Your task to perform on an android device: What is the news today? Image 0: 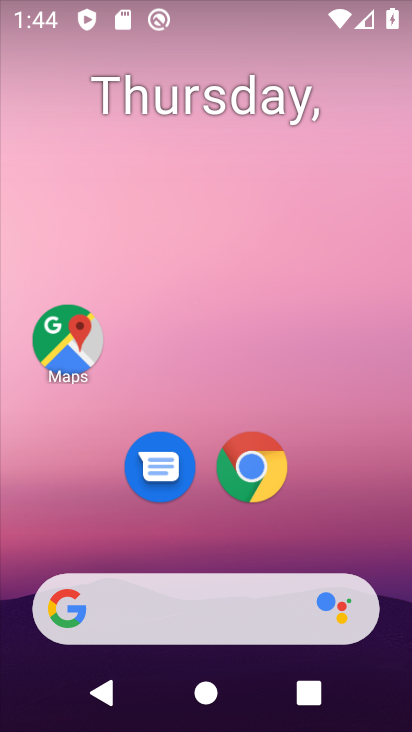
Step 0: drag from (343, 509) to (328, 162)
Your task to perform on an android device: What is the news today? Image 1: 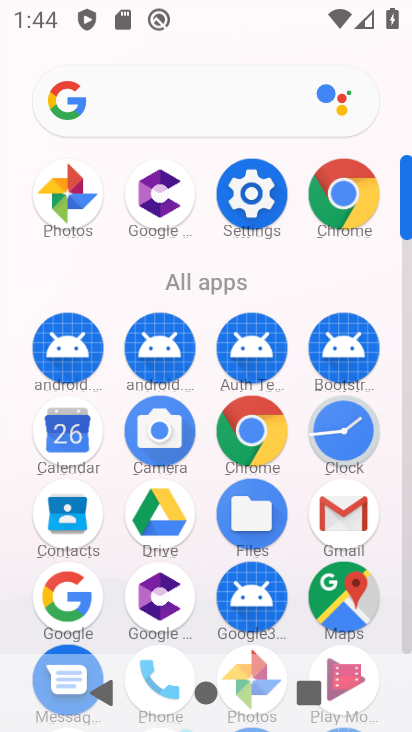
Step 1: click (268, 446)
Your task to perform on an android device: What is the news today? Image 2: 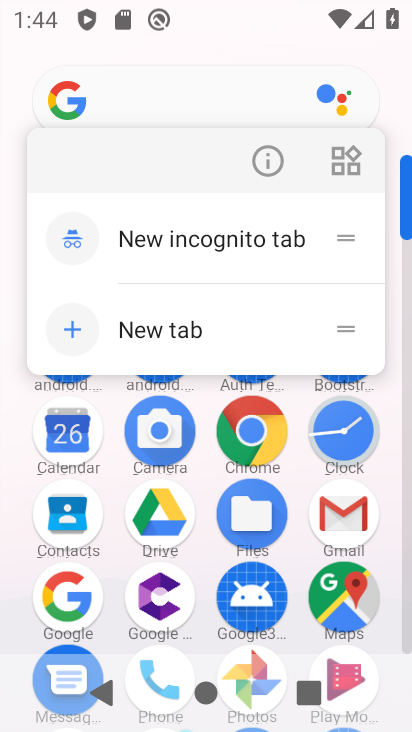
Step 2: click (260, 430)
Your task to perform on an android device: What is the news today? Image 3: 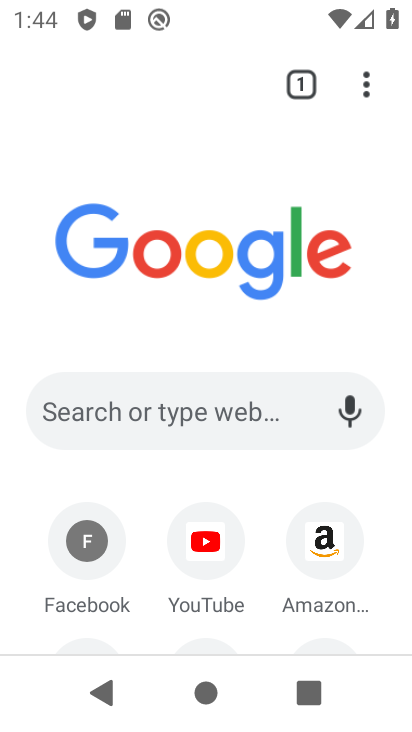
Step 3: click (240, 426)
Your task to perform on an android device: What is the news today? Image 4: 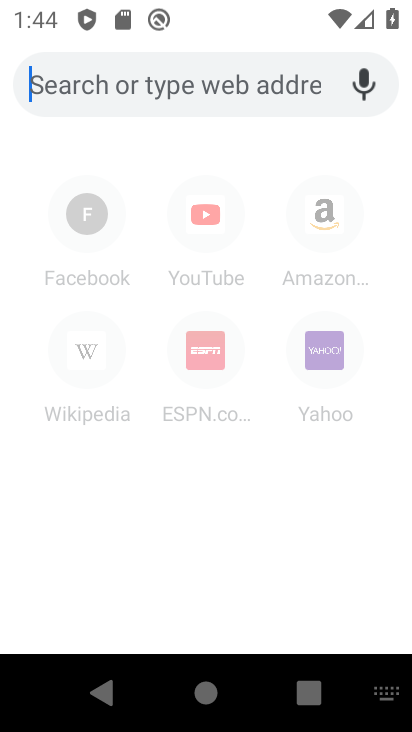
Step 4: type "what is the news today"
Your task to perform on an android device: What is the news today? Image 5: 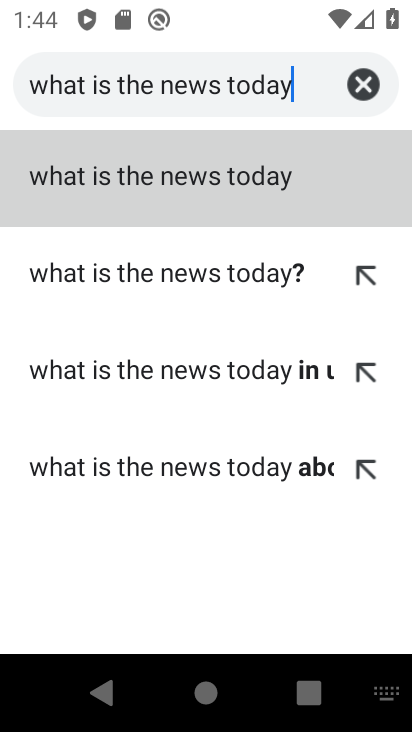
Step 5: click (186, 166)
Your task to perform on an android device: What is the news today? Image 6: 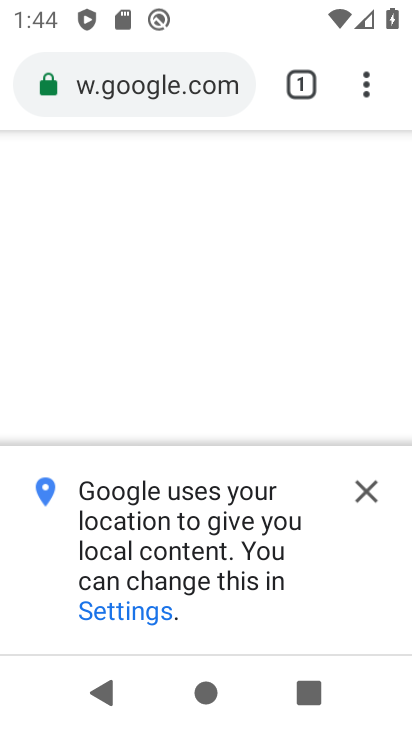
Step 6: click (372, 493)
Your task to perform on an android device: What is the news today? Image 7: 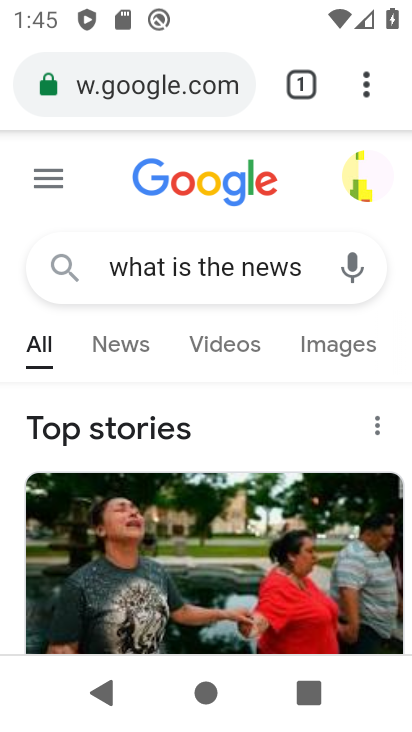
Step 7: task complete